Your task to perform on an android device: turn on javascript in the chrome app Image 0: 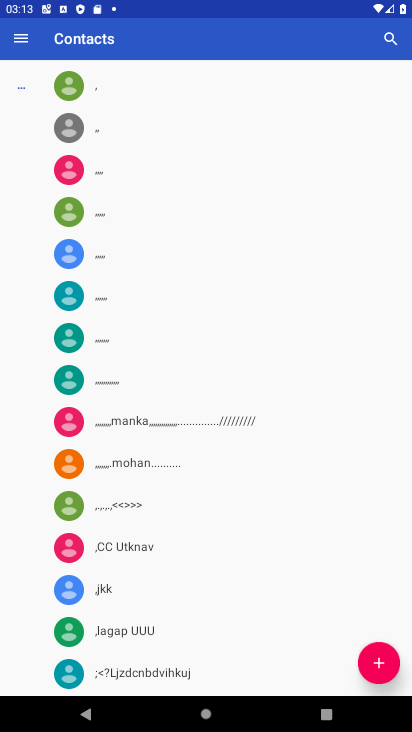
Step 0: press home button
Your task to perform on an android device: turn on javascript in the chrome app Image 1: 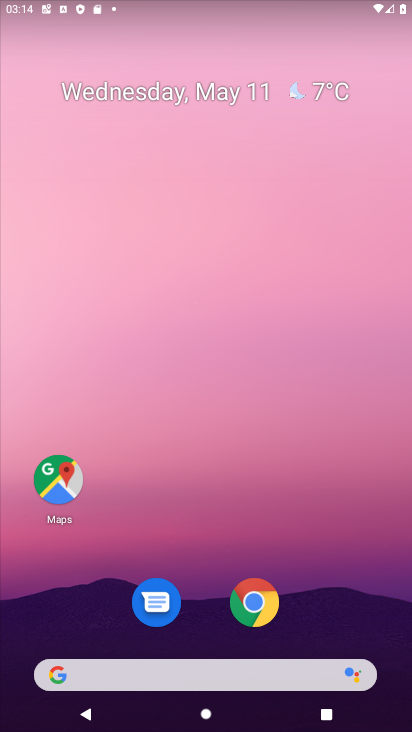
Step 1: click (251, 592)
Your task to perform on an android device: turn on javascript in the chrome app Image 2: 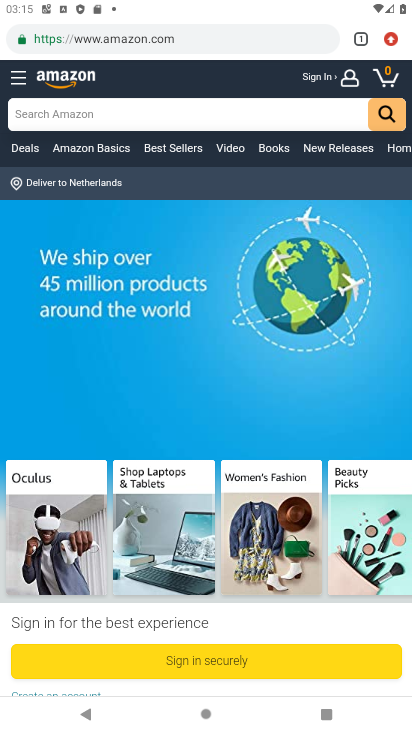
Step 2: press home button
Your task to perform on an android device: turn on javascript in the chrome app Image 3: 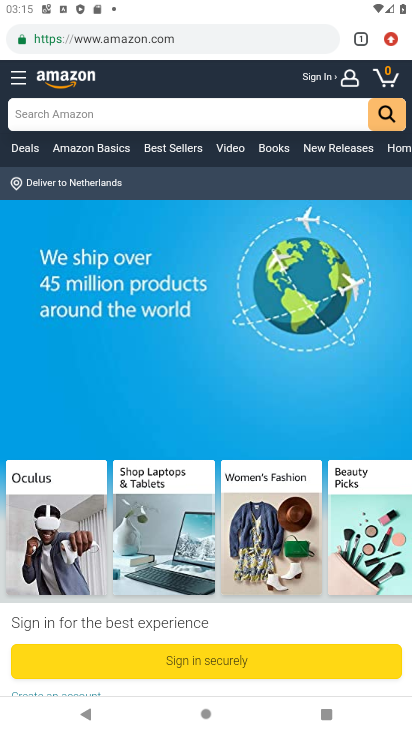
Step 3: press home button
Your task to perform on an android device: turn on javascript in the chrome app Image 4: 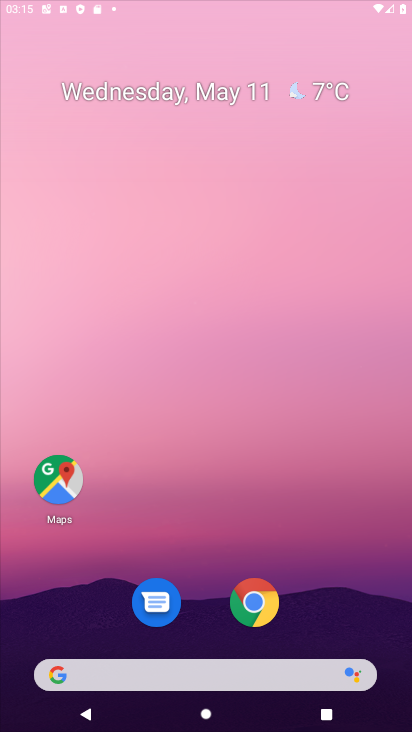
Step 4: press home button
Your task to perform on an android device: turn on javascript in the chrome app Image 5: 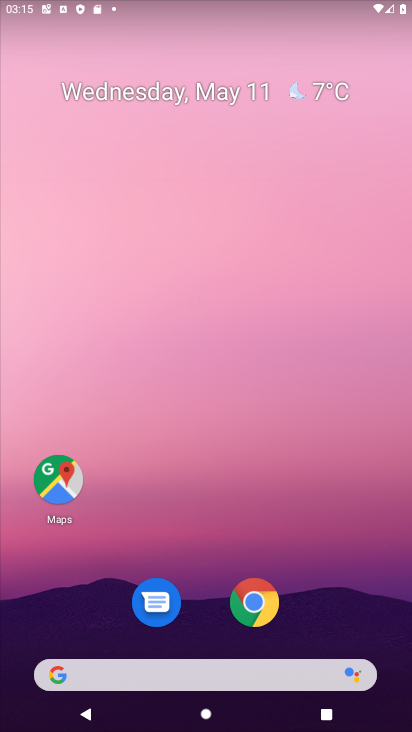
Step 5: press home button
Your task to perform on an android device: turn on javascript in the chrome app Image 6: 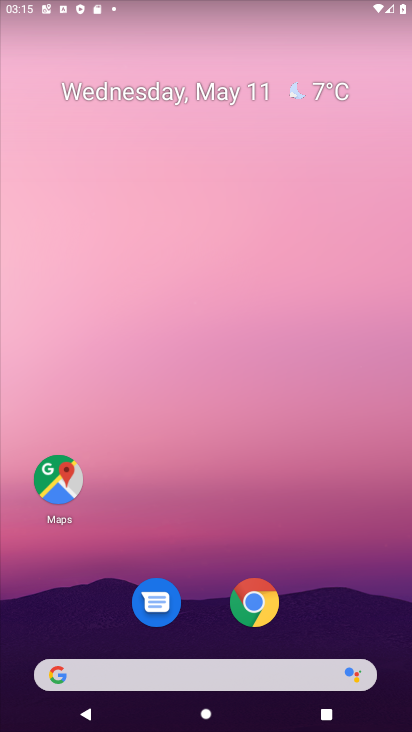
Step 6: click (250, 606)
Your task to perform on an android device: turn on javascript in the chrome app Image 7: 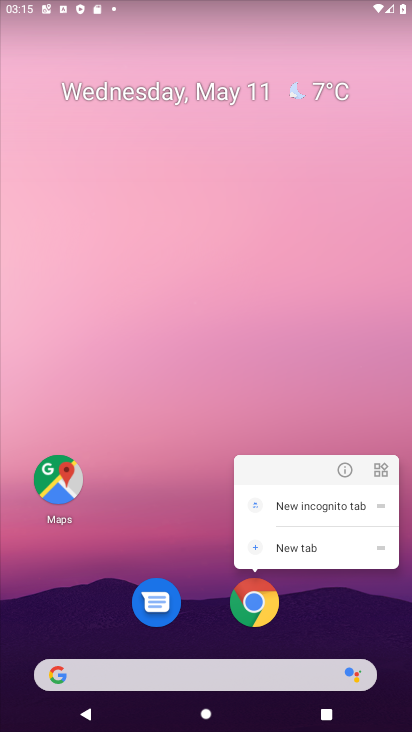
Step 7: click (241, 613)
Your task to perform on an android device: turn on javascript in the chrome app Image 8: 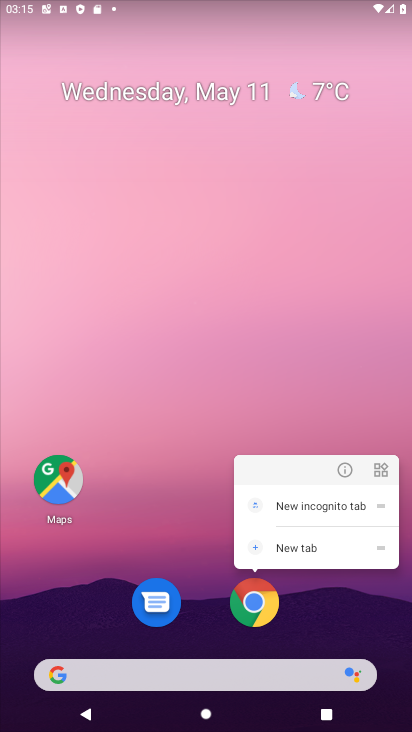
Step 8: click (244, 611)
Your task to perform on an android device: turn on javascript in the chrome app Image 9: 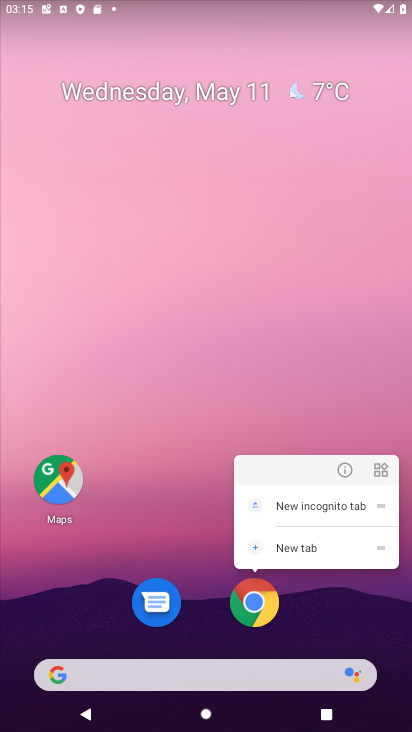
Step 9: click (244, 611)
Your task to perform on an android device: turn on javascript in the chrome app Image 10: 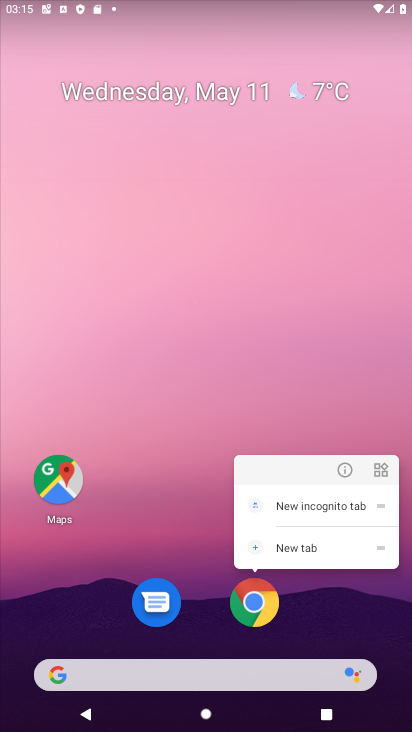
Step 10: click (244, 611)
Your task to perform on an android device: turn on javascript in the chrome app Image 11: 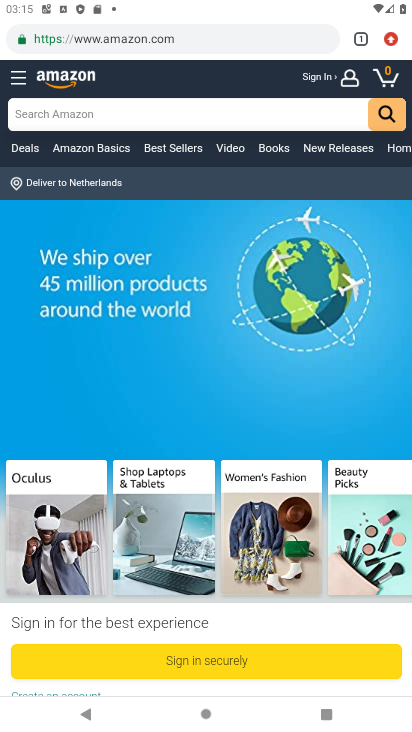
Step 11: click (366, 44)
Your task to perform on an android device: turn on javascript in the chrome app Image 12: 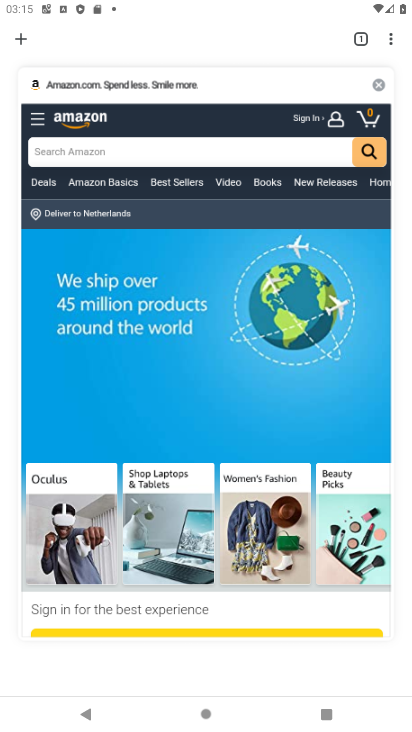
Step 12: click (377, 88)
Your task to perform on an android device: turn on javascript in the chrome app Image 13: 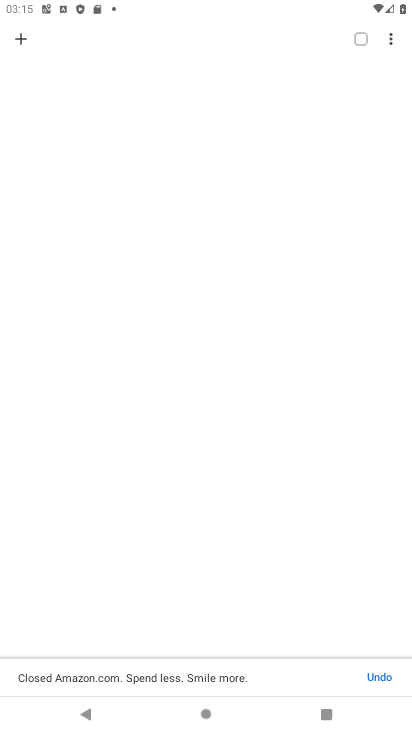
Step 13: click (22, 36)
Your task to perform on an android device: turn on javascript in the chrome app Image 14: 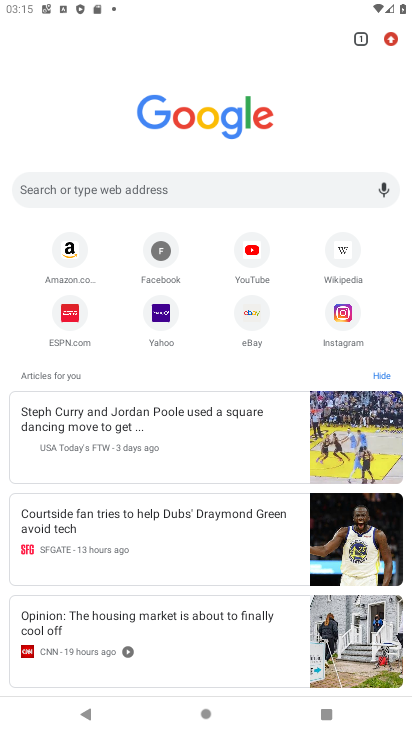
Step 14: click (364, 41)
Your task to perform on an android device: turn on javascript in the chrome app Image 15: 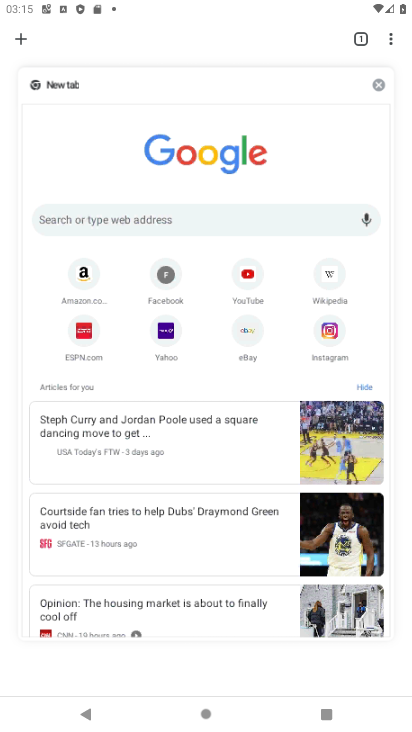
Step 15: click (383, 74)
Your task to perform on an android device: turn on javascript in the chrome app Image 16: 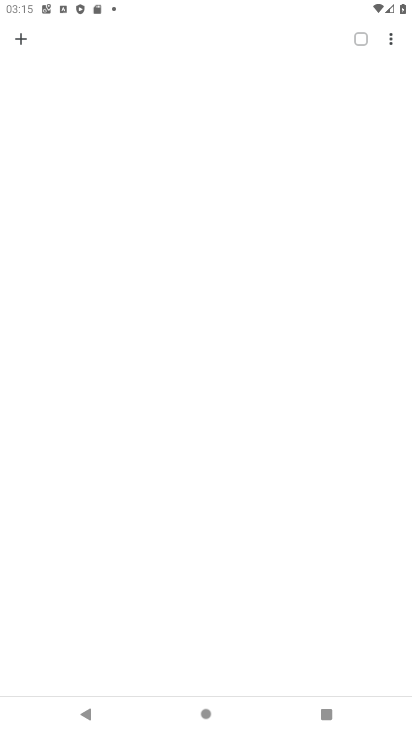
Step 16: click (390, 36)
Your task to perform on an android device: turn on javascript in the chrome app Image 17: 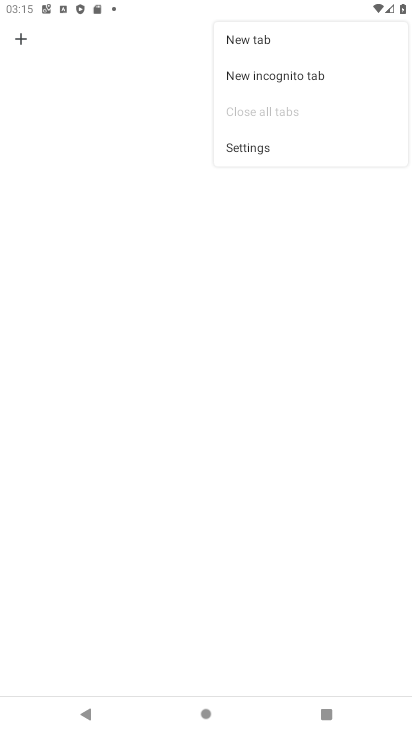
Step 17: click (262, 148)
Your task to perform on an android device: turn on javascript in the chrome app Image 18: 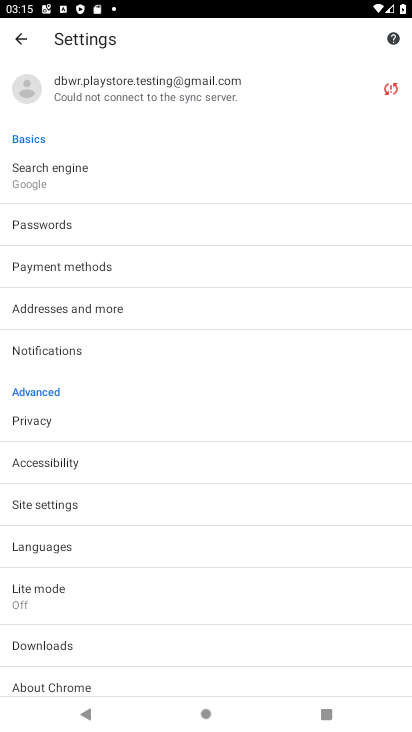
Step 18: click (114, 501)
Your task to perform on an android device: turn on javascript in the chrome app Image 19: 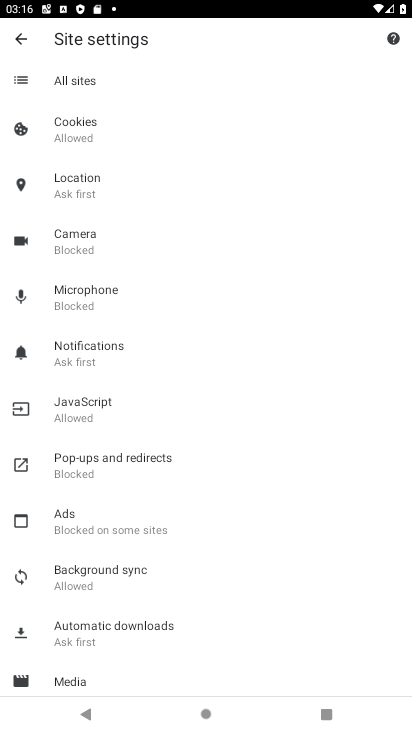
Step 19: drag from (233, 574) to (207, 232)
Your task to perform on an android device: turn on javascript in the chrome app Image 20: 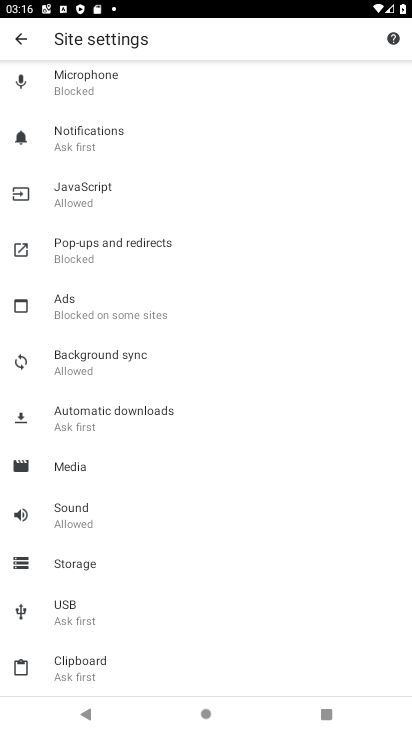
Step 20: click (89, 188)
Your task to perform on an android device: turn on javascript in the chrome app Image 21: 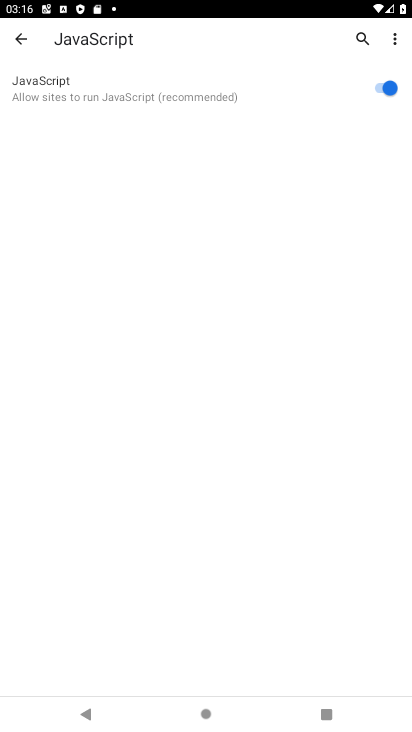
Step 21: task complete